Your task to perform on an android device: open wifi settings Image 0: 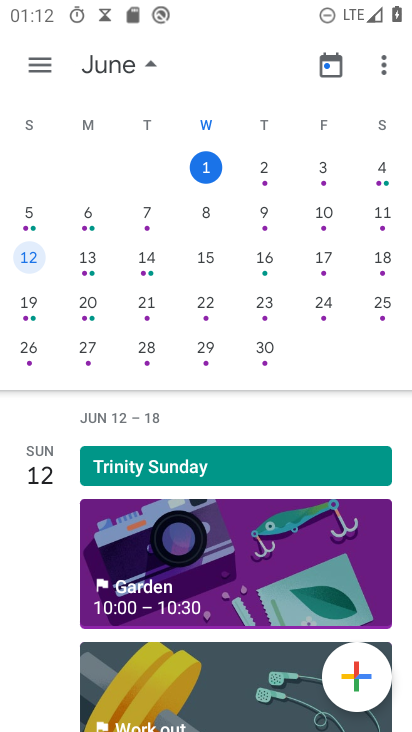
Step 0: press home button
Your task to perform on an android device: open wifi settings Image 1: 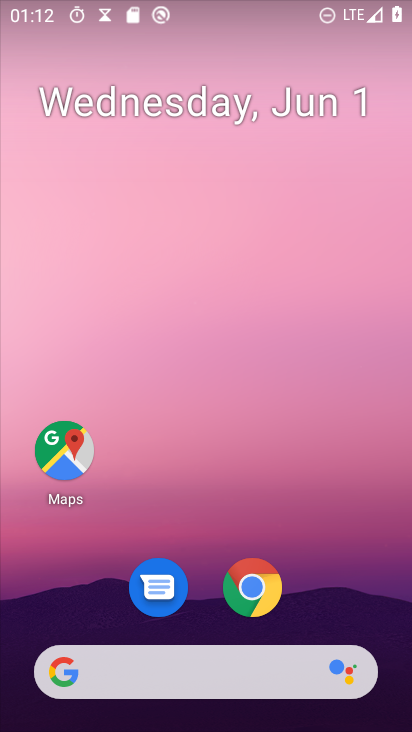
Step 1: drag from (330, 617) to (337, 36)
Your task to perform on an android device: open wifi settings Image 2: 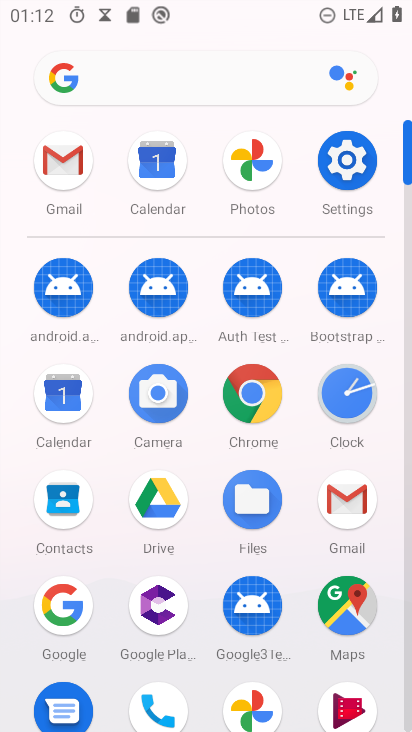
Step 2: click (349, 155)
Your task to perform on an android device: open wifi settings Image 3: 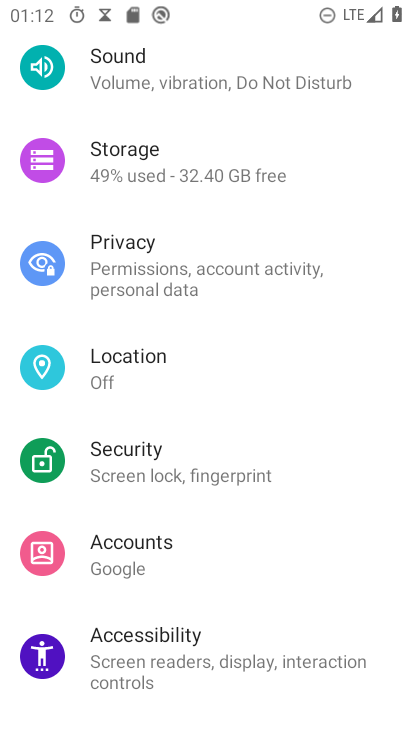
Step 3: drag from (335, 168) to (366, 659)
Your task to perform on an android device: open wifi settings Image 4: 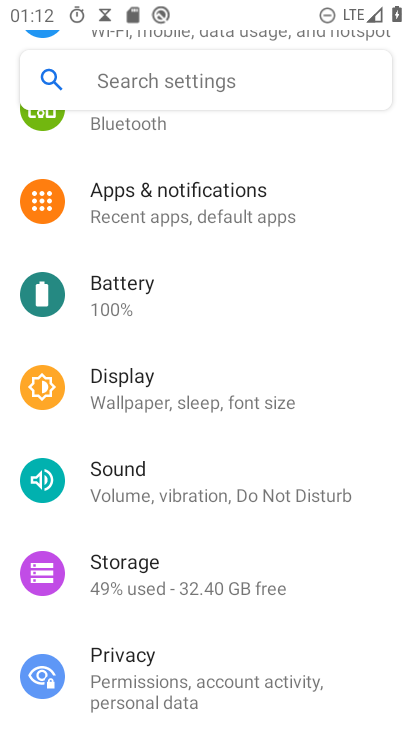
Step 4: drag from (318, 193) to (339, 543)
Your task to perform on an android device: open wifi settings Image 5: 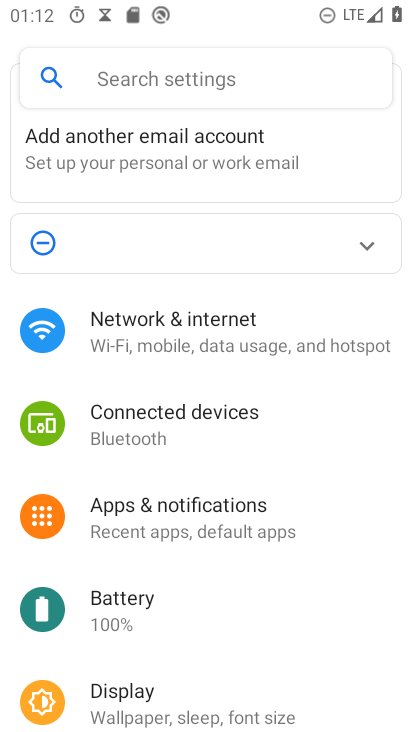
Step 5: click (247, 341)
Your task to perform on an android device: open wifi settings Image 6: 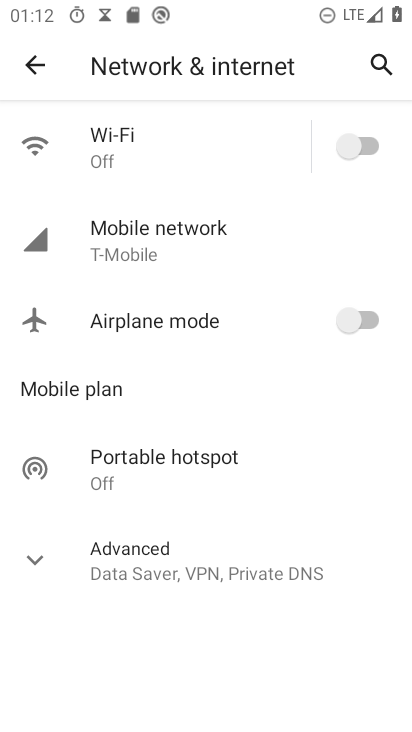
Step 6: click (101, 170)
Your task to perform on an android device: open wifi settings Image 7: 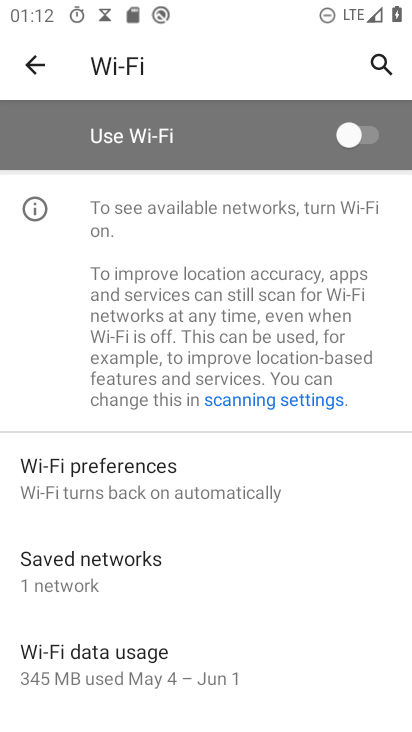
Step 7: task complete